Your task to perform on an android device: change notifications settings Image 0: 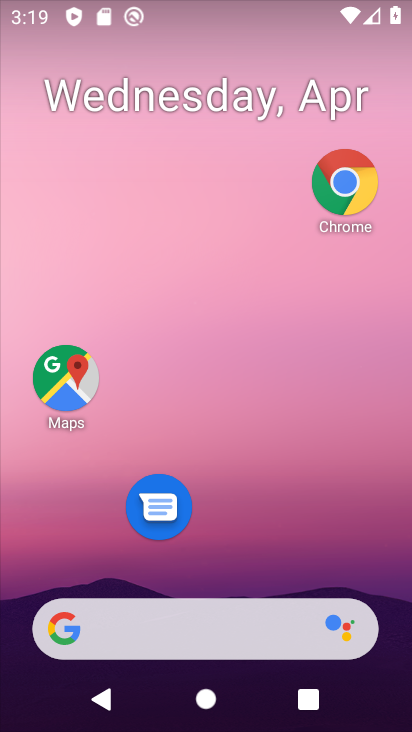
Step 0: drag from (241, 580) to (255, 71)
Your task to perform on an android device: change notifications settings Image 1: 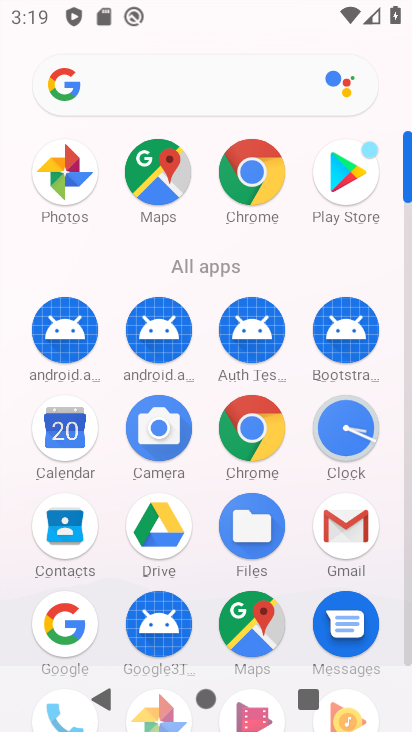
Step 1: drag from (210, 440) to (217, 114)
Your task to perform on an android device: change notifications settings Image 2: 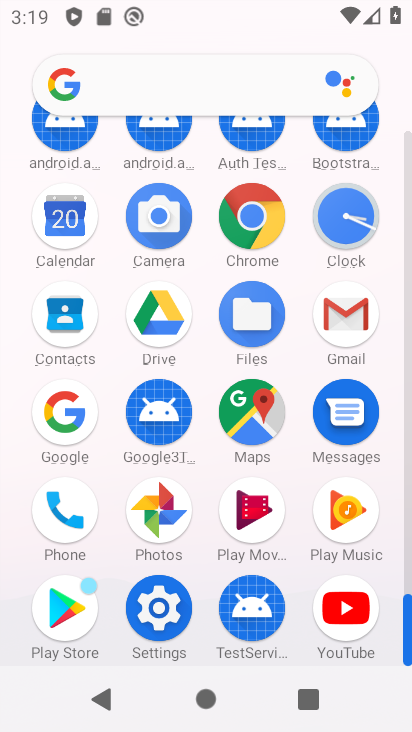
Step 2: click (165, 611)
Your task to perform on an android device: change notifications settings Image 3: 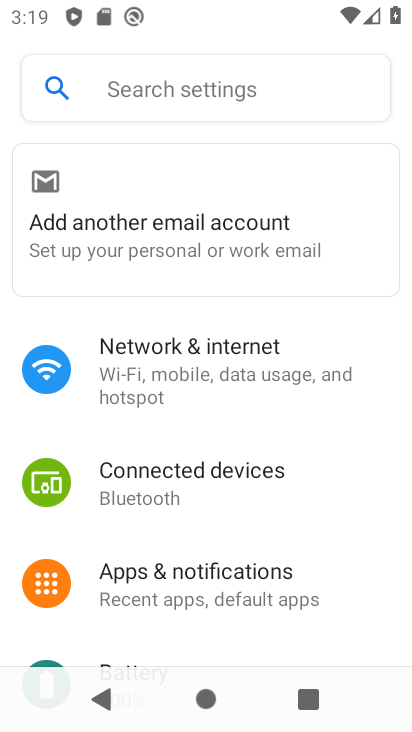
Step 3: click (228, 583)
Your task to perform on an android device: change notifications settings Image 4: 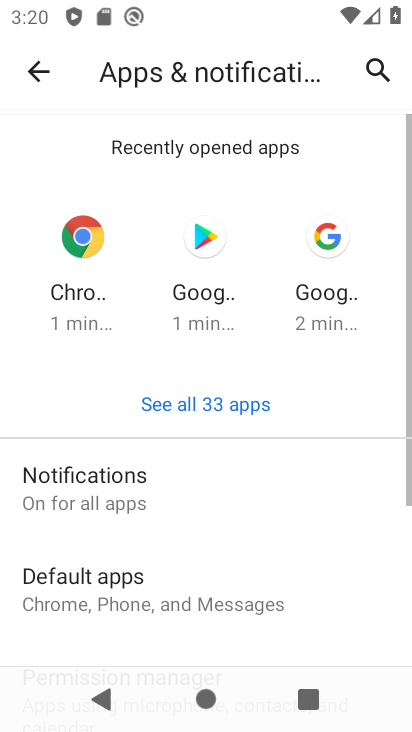
Step 4: click (108, 486)
Your task to perform on an android device: change notifications settings Image 5: 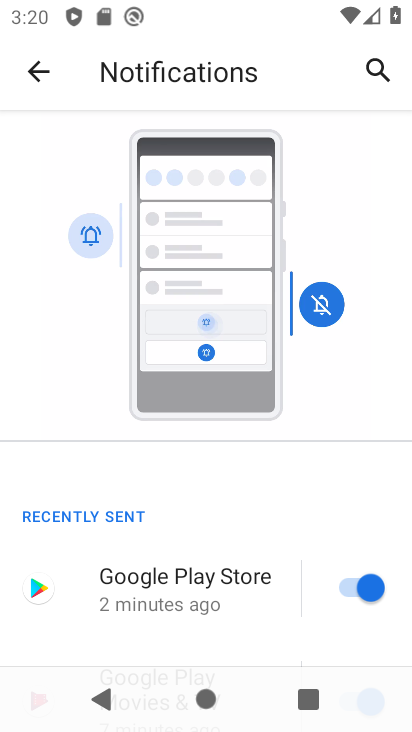
Step 5: drag from (190, 466) to (255, 93)
Your task to perform on an android device: change notifications settings Image 6: 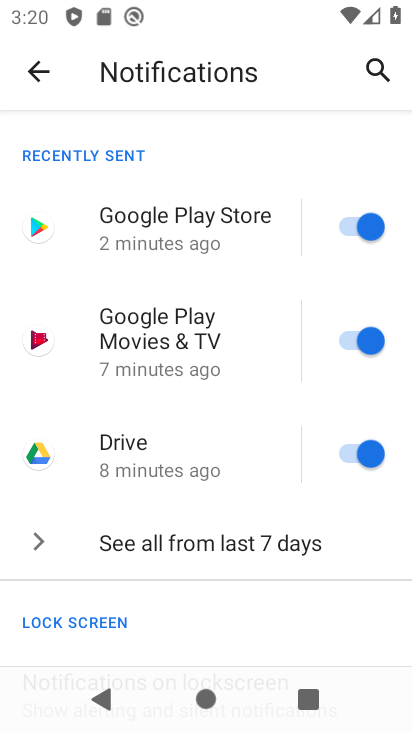
Step 6: drag from (189, 526) to (254, 66)
Your task to perform on an android device: change notifications settings Image 7: 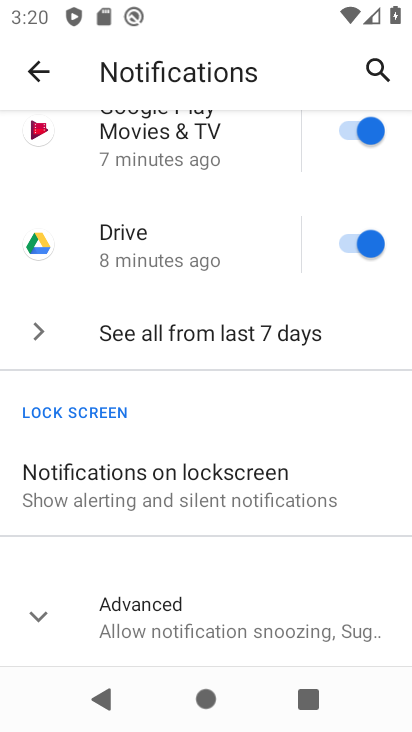
Step 7: click (347, 234)
Your task to perform on an android device: change notifications settings Image 8: 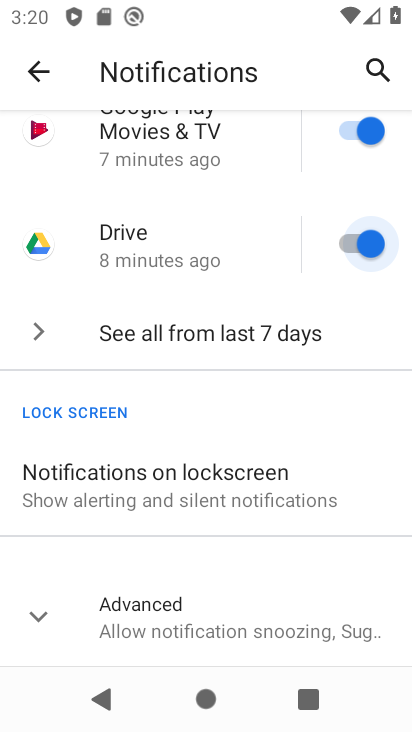
Step 8: drag from (255, 209) to (237, 405)
Your task to perform on an android device: change notifications settings Image 9: 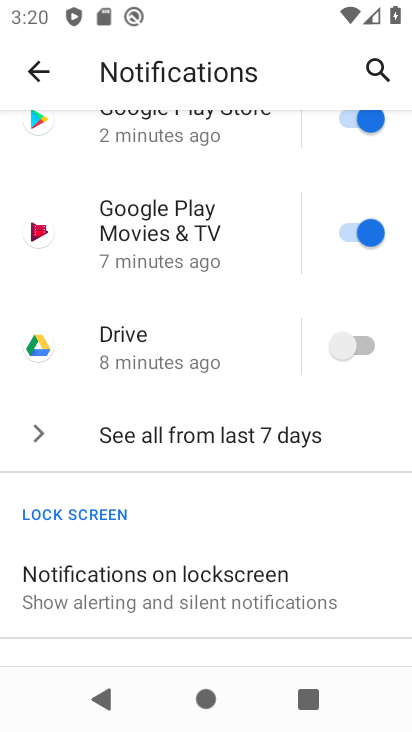
Step 9: click (347, 236)
Your task to perform on an android device: change notifications settings Image 10: 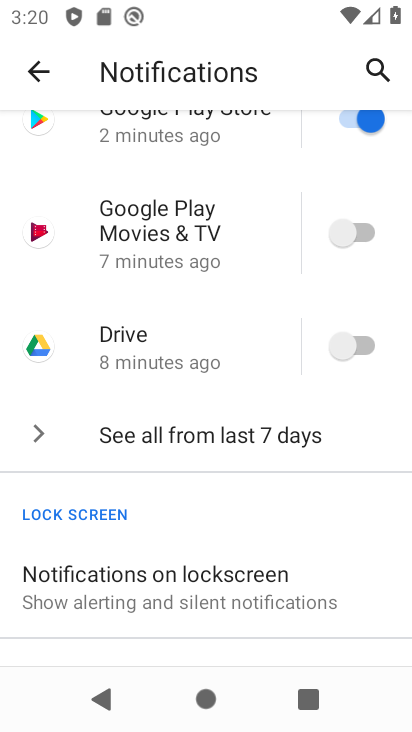
Step 10: click (350, 117)
Your task to perform on an android device: change notifications settings Image 11: 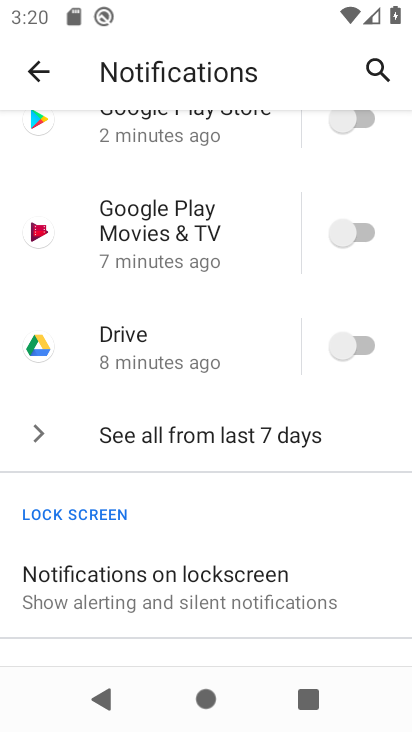
Step 11: task complete